Your task to perform on an android device: Is it going to rain this weekend? Image 0: 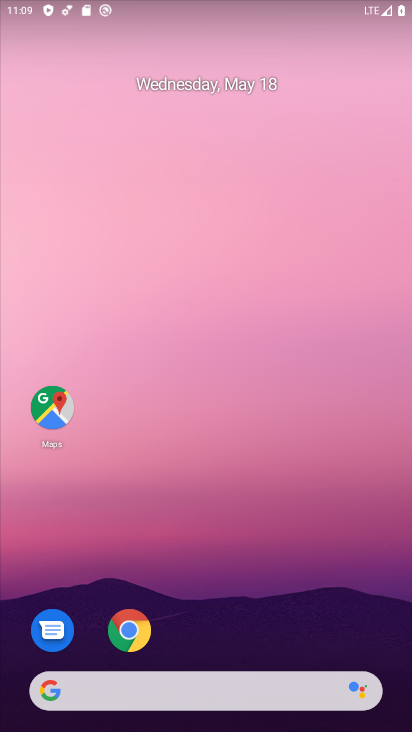
Step 0: click (188, 681)
Your task to perform on an android device: Is it going to rain this weekend? Image 1: 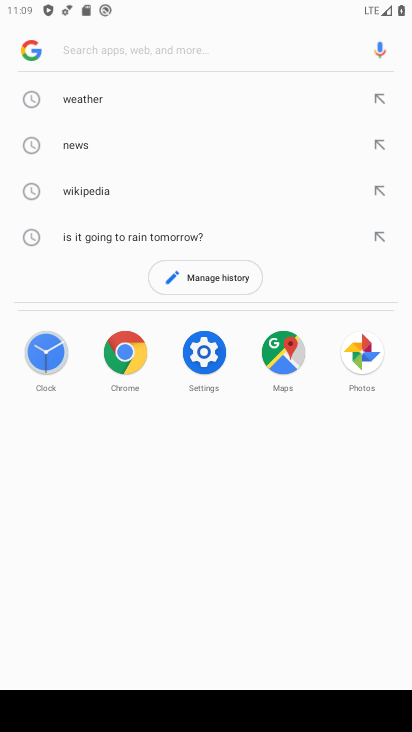
Step 1: click (93, 102)
Your task to perform on an android device: Is it going to rain this weekend? Image 2: 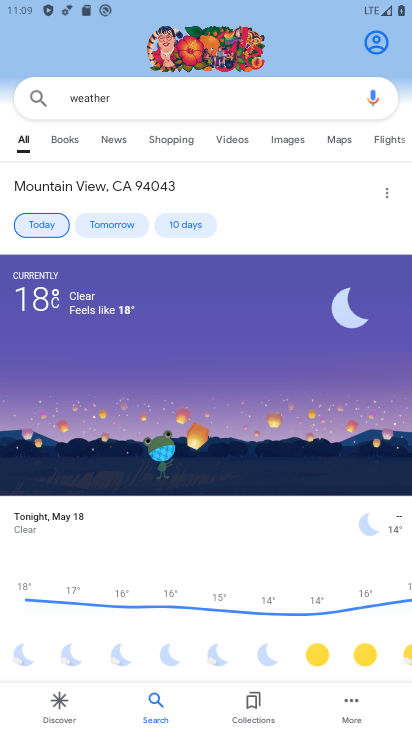
Step 2: click (188, 229)
Your task to perform on an android device: Is it going to rain this weekend? Image 3: 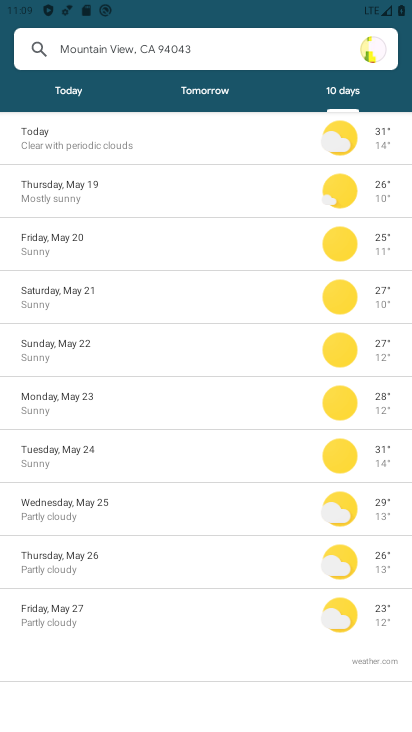
Step 3: task complete